Your task to perform on an android device: toggle notifications settings in the gmail app Image 0: 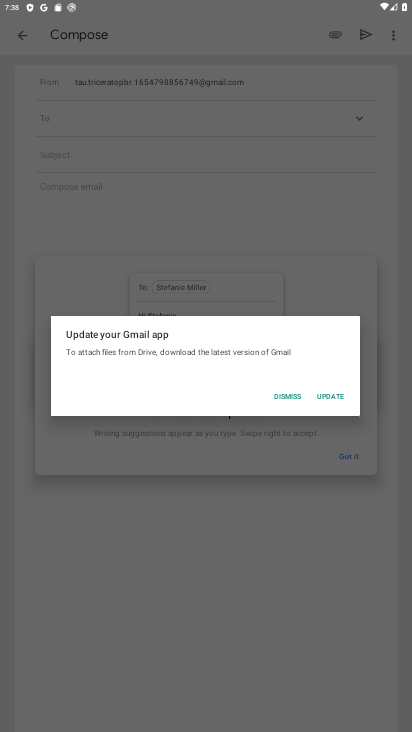
Step 0: press home button
Your task to perform on an android device: toggle notifications settings in the gmail app Image 1: 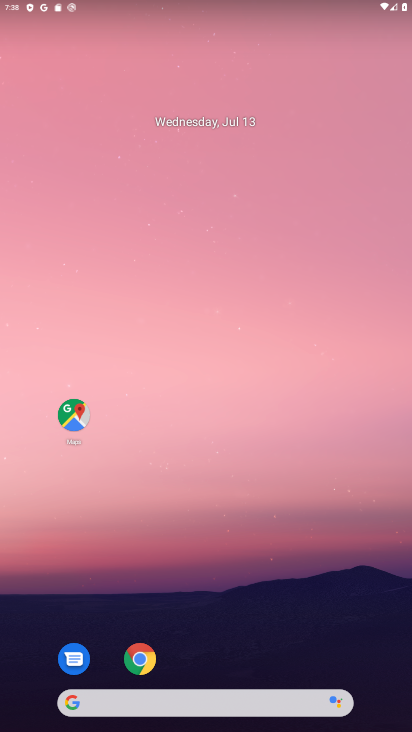
Step 1: drag from (224, 631) to (203, 149)
Your task to perform on an android device: toggle notifications settings in the gmail app Image 2: 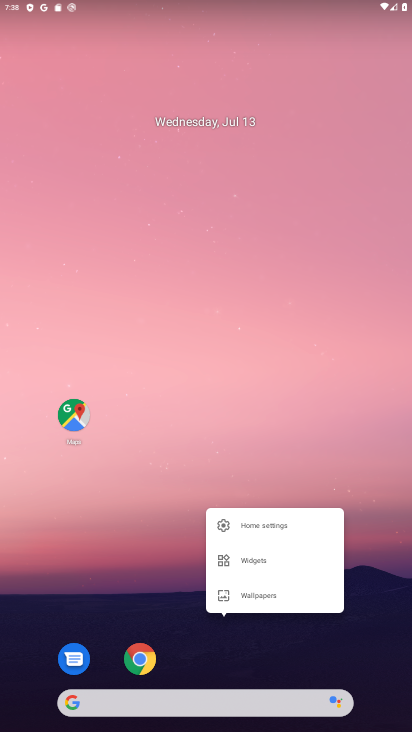
Step 2: click (150, 383)
Your task to perform on an android device: toggle notifications settings in the gmail app Image 3: 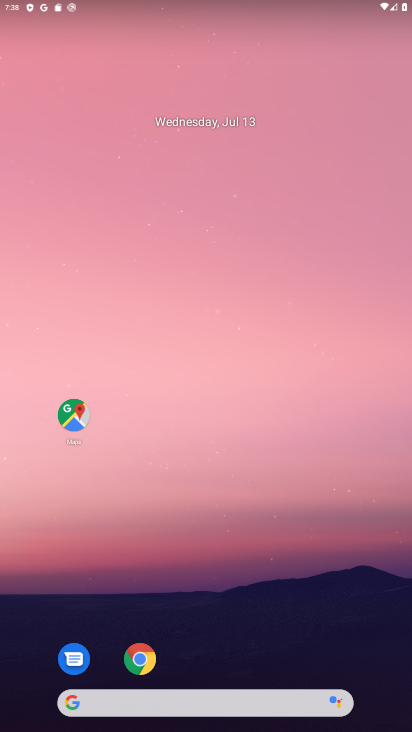
Step 3: drag from (257, 664) to (248, 260)
Your task to perform on an android device: toggle notifications settings in the gmail app Image 4: 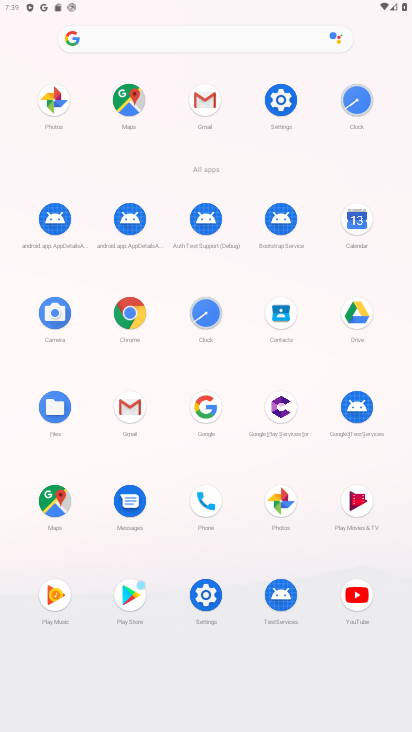
Step 4: click (199, 108)
Your task to perform on an android device: toggle notifications settings in the gmail app Image 5: 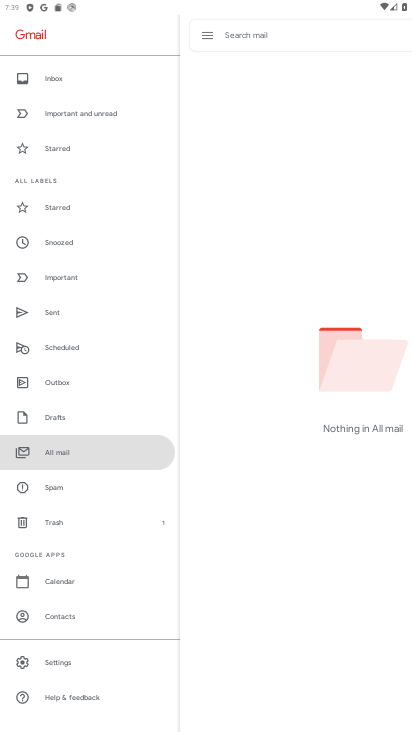
Step 5: click (69, 666)
Your task to perform on an android device: toggle notifications settings in the gmail app Image 6: 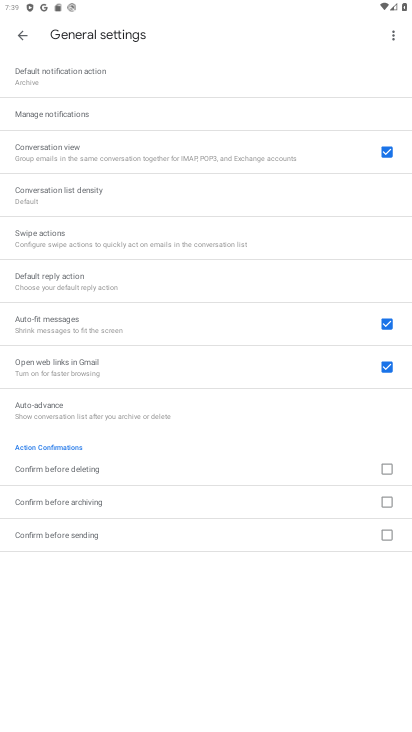
Step 6: click (127, 105)
Your task to perform on an android device: toggle notifications settings in the gmail app Image 7: 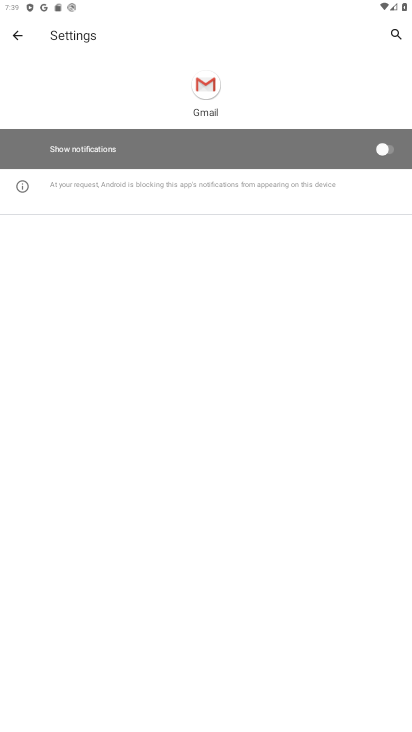
Step 7: click (361, 140)
Your task to perform on an android device: toggle notifications settings in the gmail app Image 8: 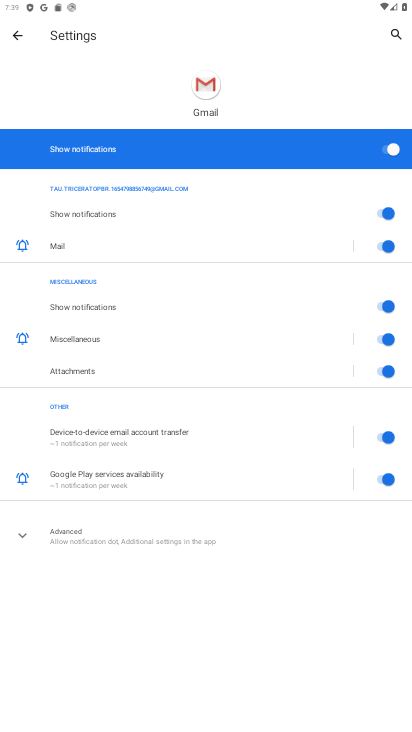
Step 8: task complete